Your task to perform on an android device: Search for usb-c on walmart.com, select the first entry, and add it to the cart. Image 0: 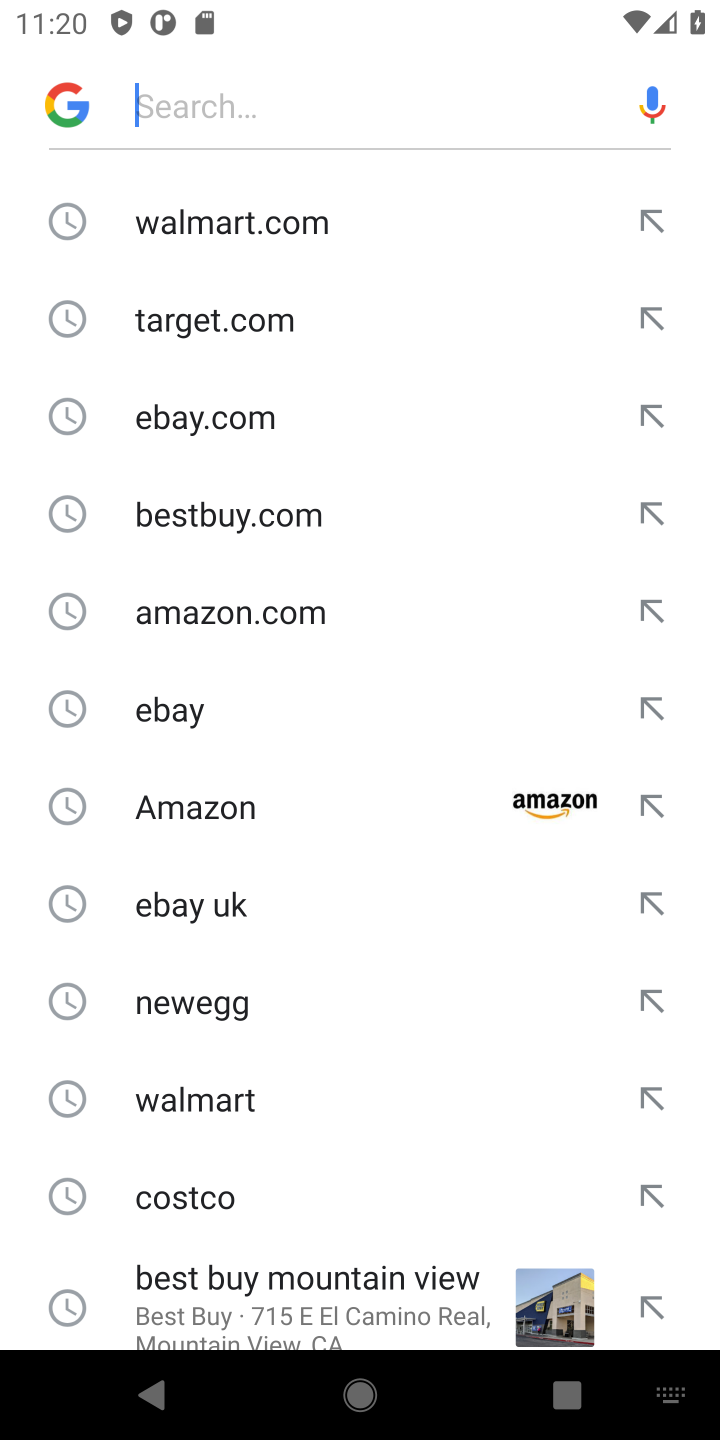
Step 0: press home button
Your task to perform on an android device: Search for usb-c on walmart.com, select the first entry, and add it to the cart. Image 1: 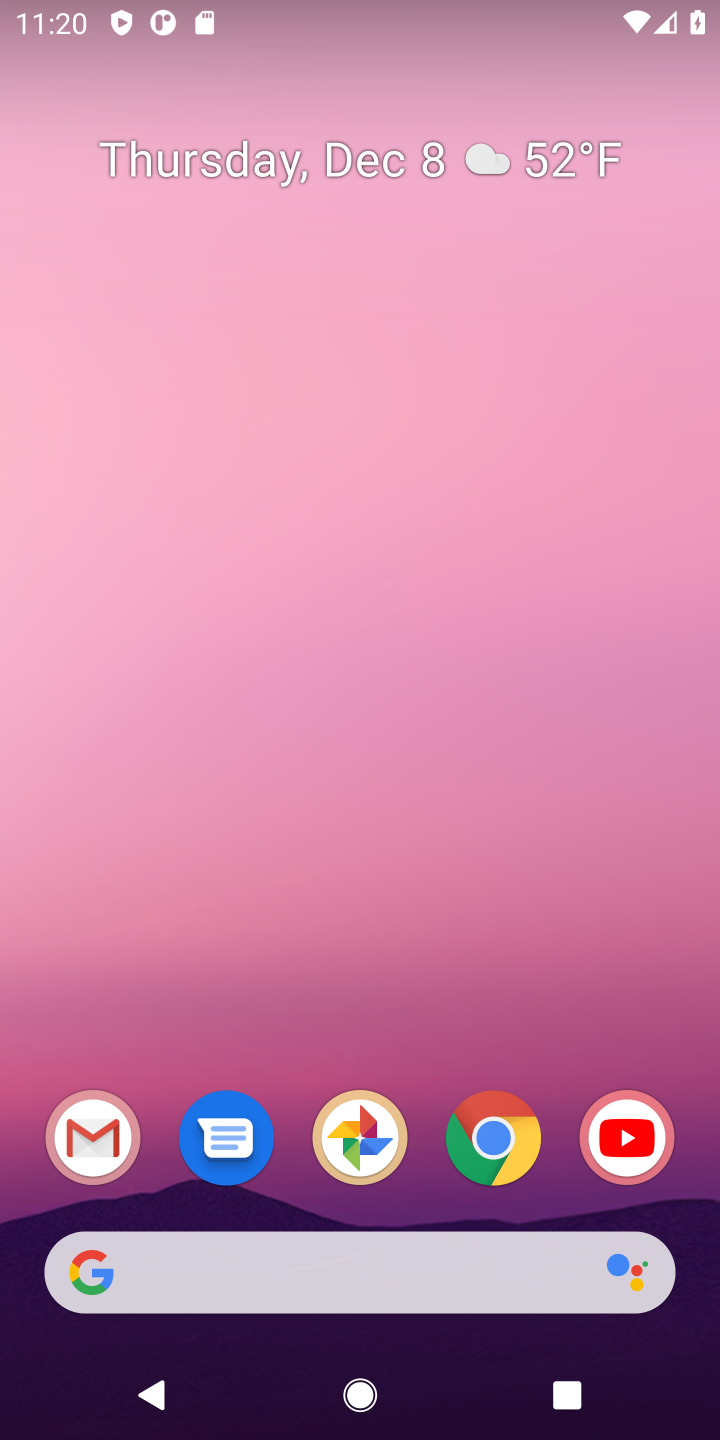
Step 1: click (488, 1140)
Your task to perform on an android device: Search for usb-c on walmart.com, select the first entry, and add it to the cart. Image 2: 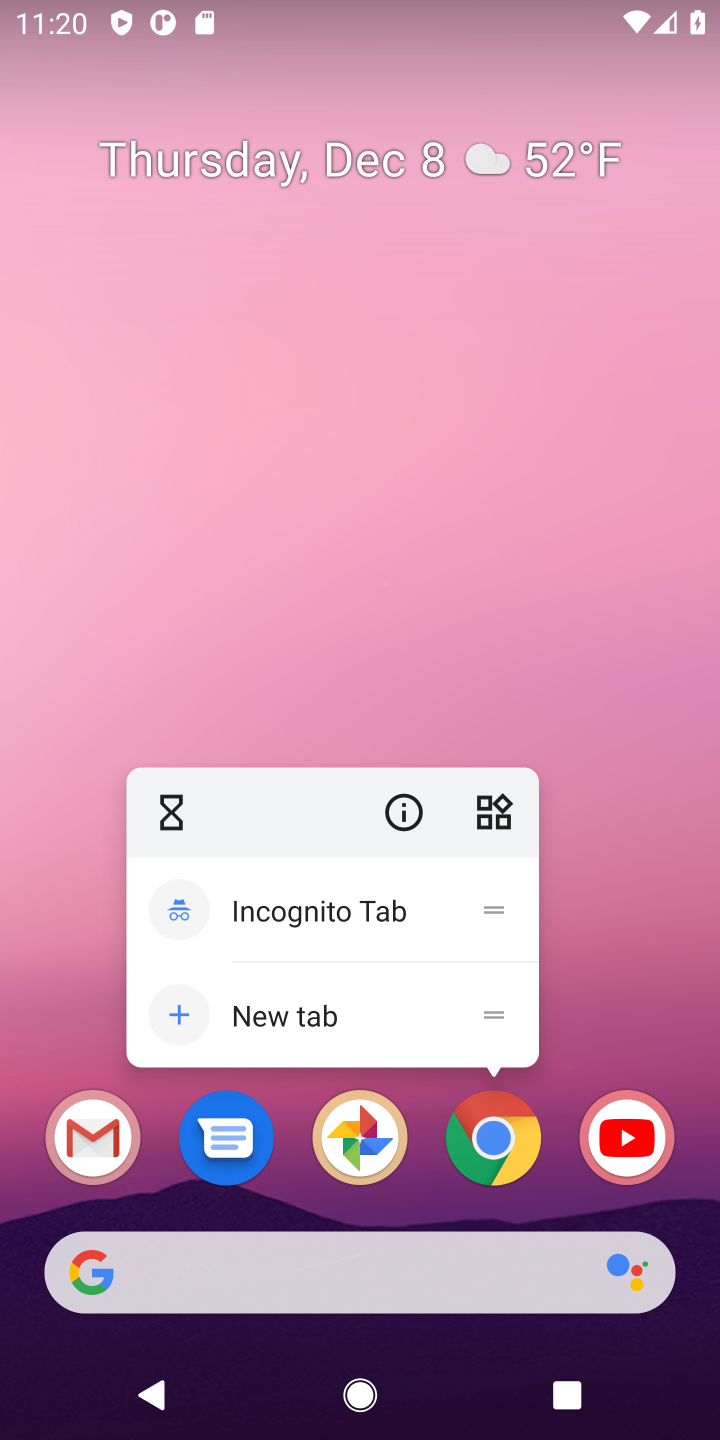
Step 2: click (510, 1160)
Your task to perform on an android device: Search for usb-c on walmart.com, select the first entry, and add it to the cart. Image 3: 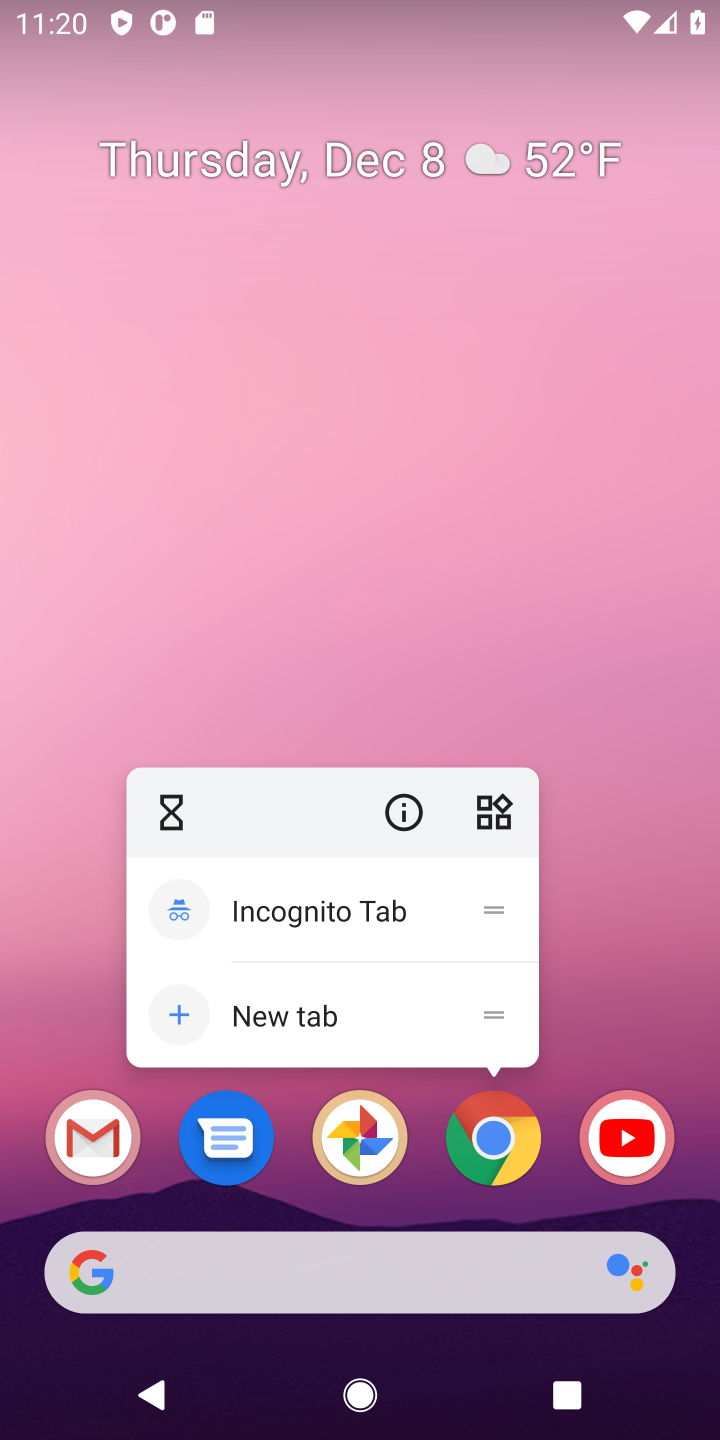
Step 3: click (510, 1161)
Your task to perform on an android device: Search for usb-c on walmart.com, select the first entry, and add it to the cart. Image 4: 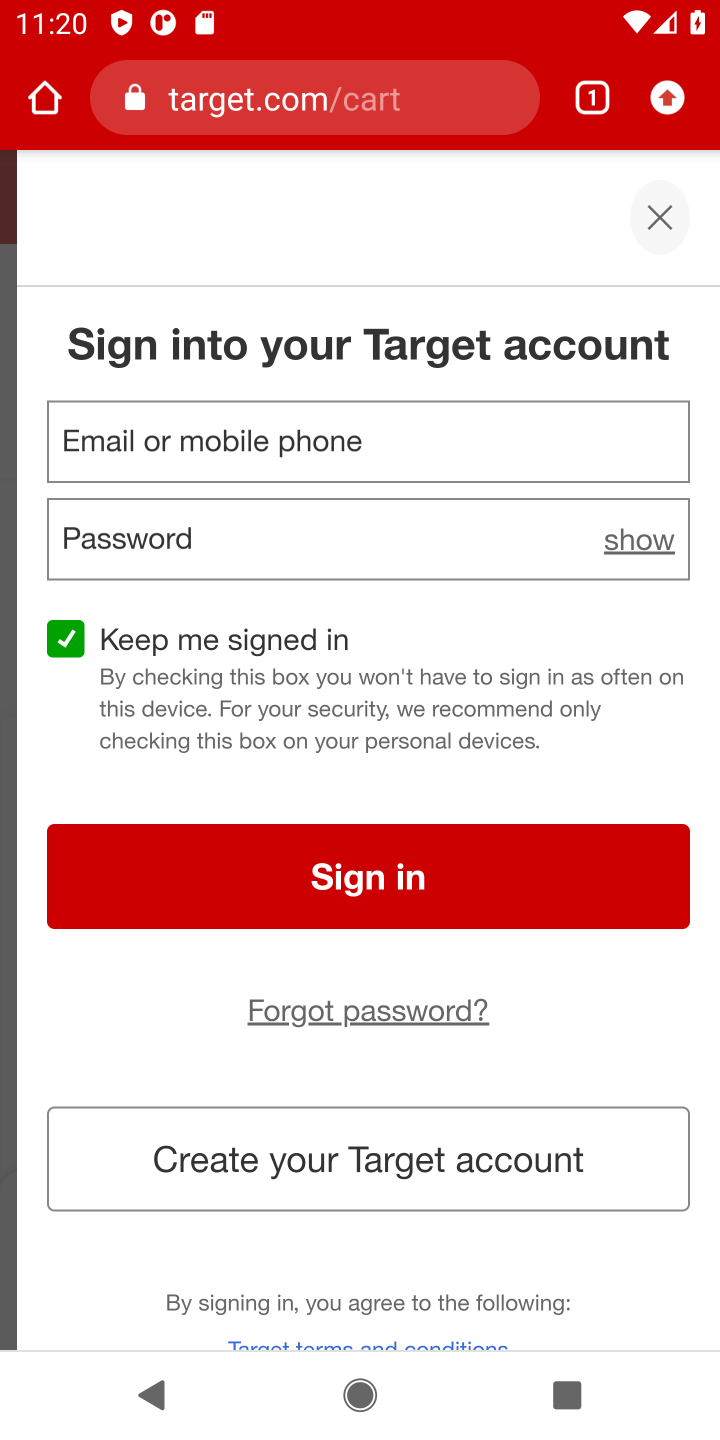
Step 4: click (242, 107)
Your task to perform on an android device: Search for usb-c on walmart.com, select the first entry, and add it to the cart. Image 5: 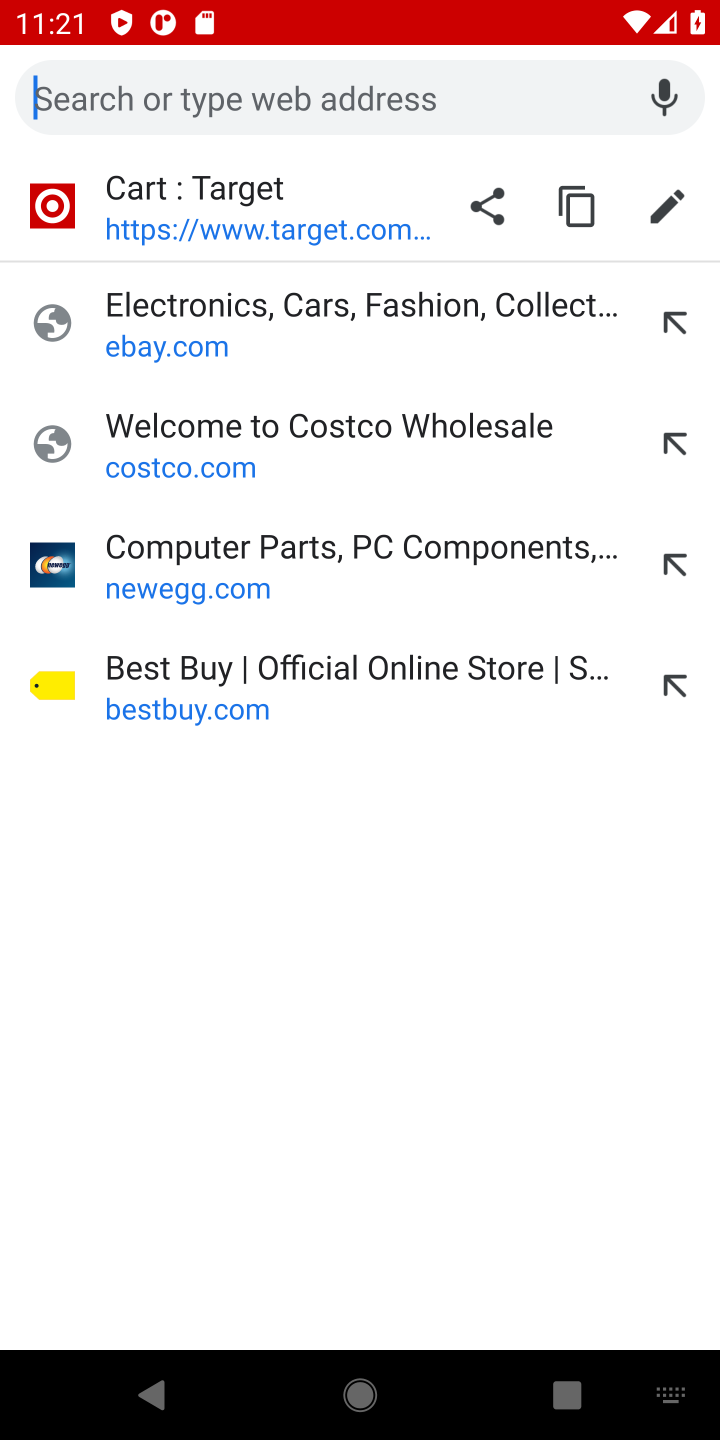
Step 5: type "walmart.com"
Your task to perform on an android device: Search for usb-c on walmart.com, select the first entry, and add it to the cart. Image 6: 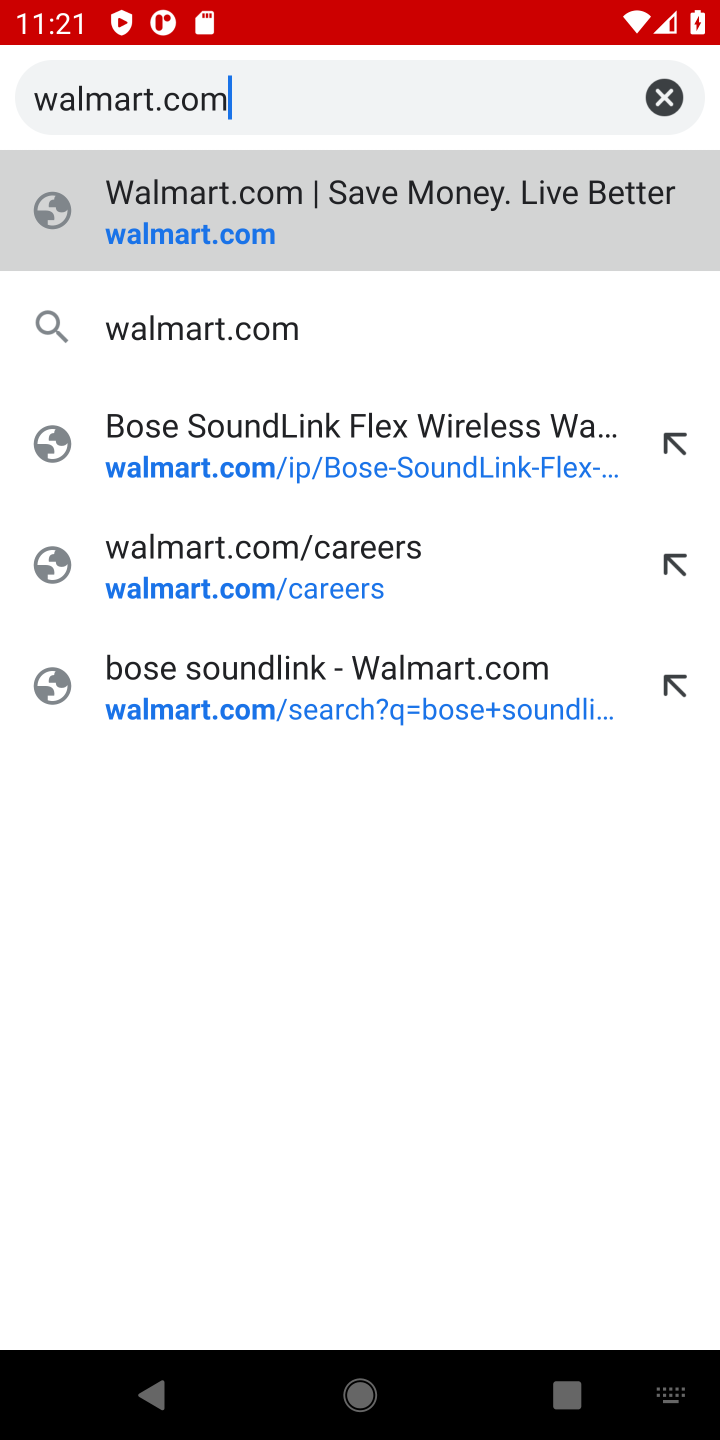
Step 6: click (331, 203)
Your task to perform on an android device: Search for usb-c on walmart.com, select the first entry, and add it to the cart. Image 7: 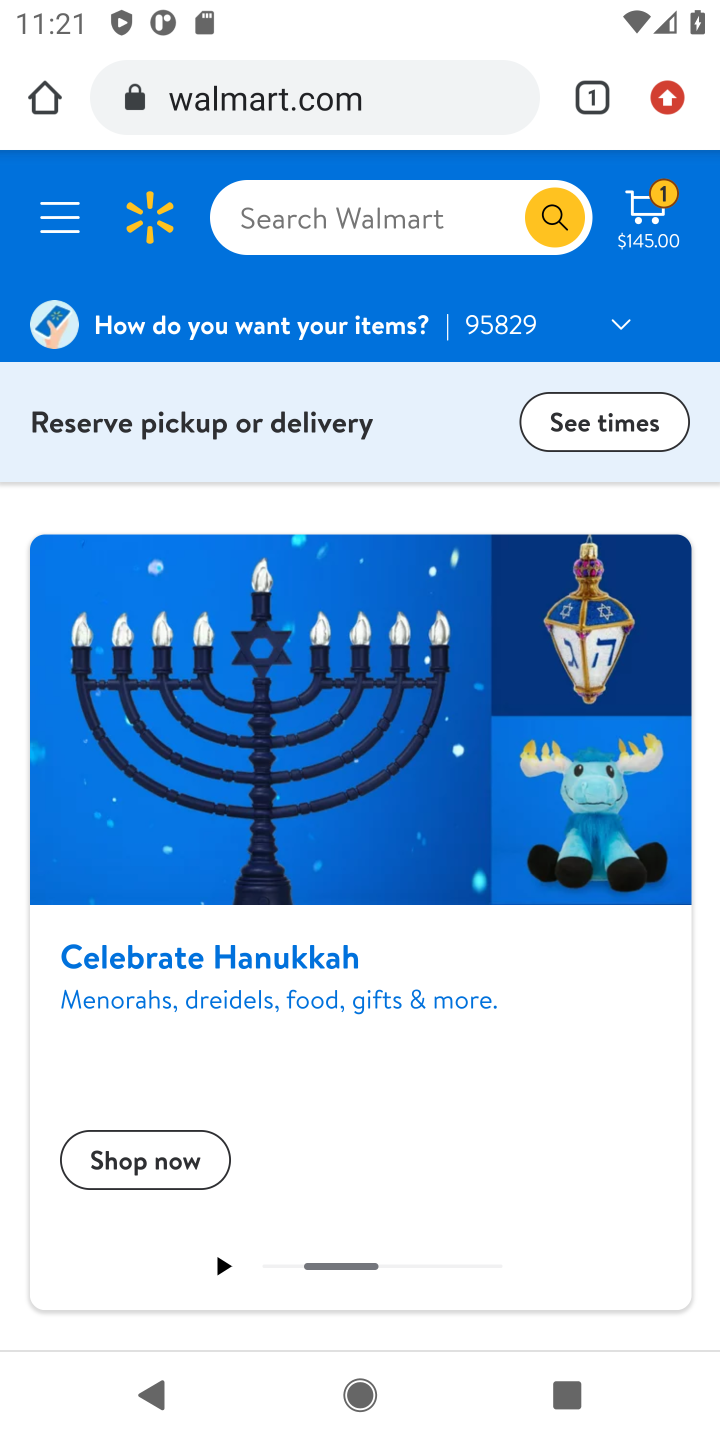
Step 7: click (323, 230)
Your task to perform on an android device: Search for usb-c on walmart.com, select the first entry, and add it to the cart. Image 8: 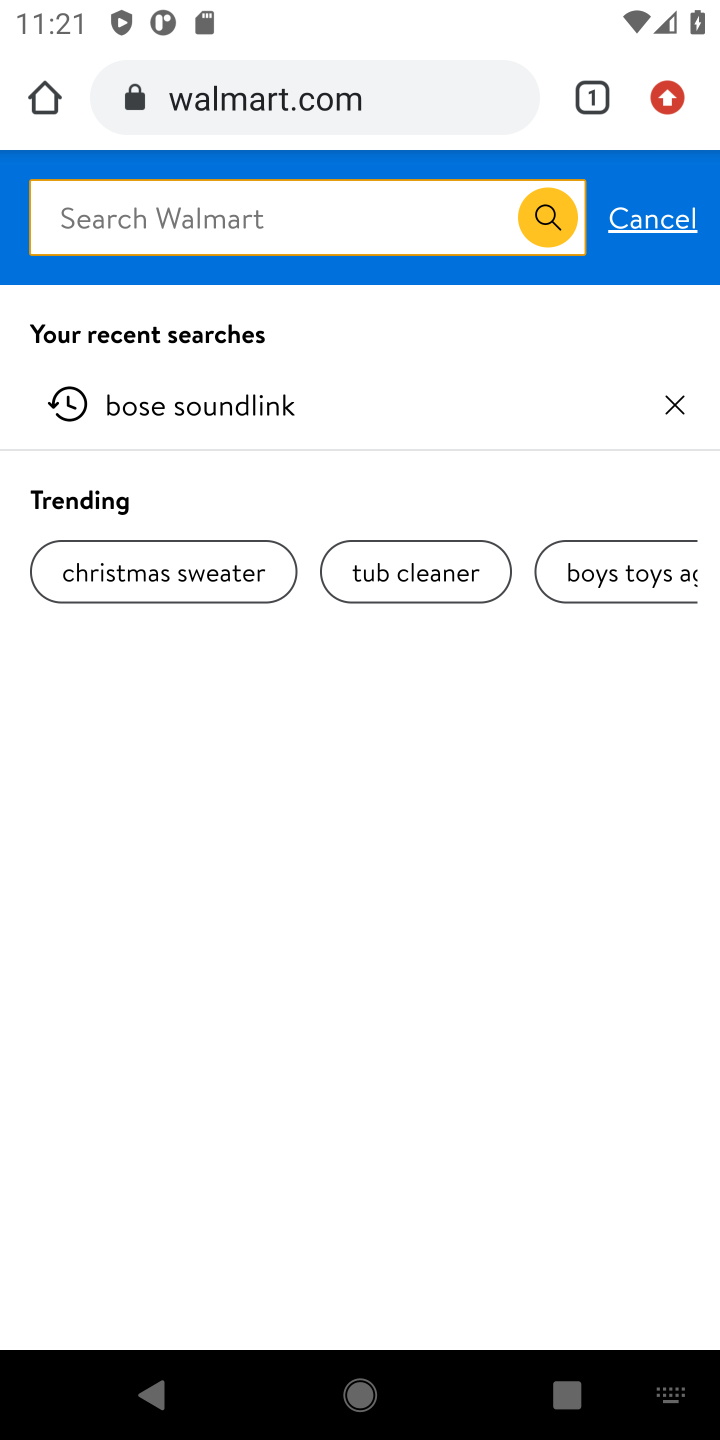
Step 8: type "usb-c"
Your task to perform on an android device: Search for usb-c on walmart.com, select the first entry, and add it to the cart. Image 9: 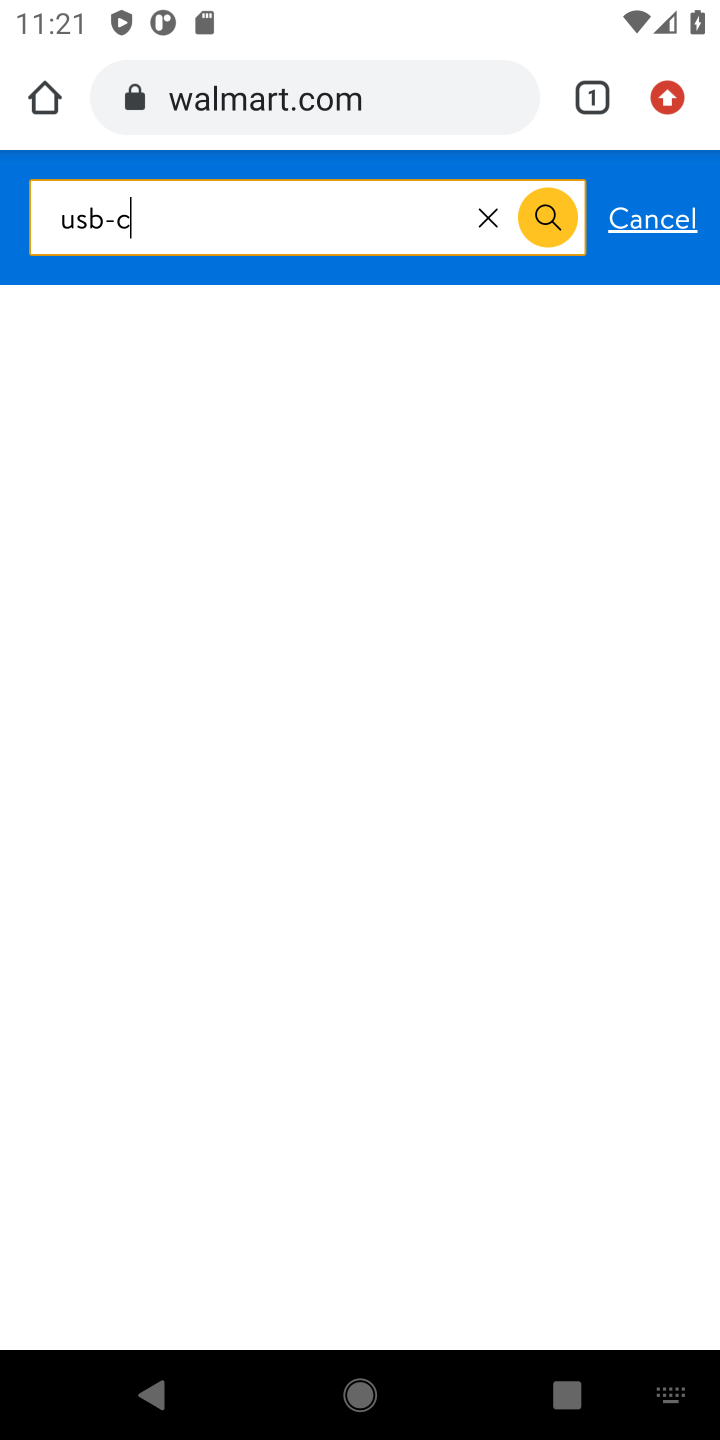
Step 9: press enter
Your task to perform on an android device: Search for usb-c on walmart.com, select the first entry, and add it to the cart. Image 10: 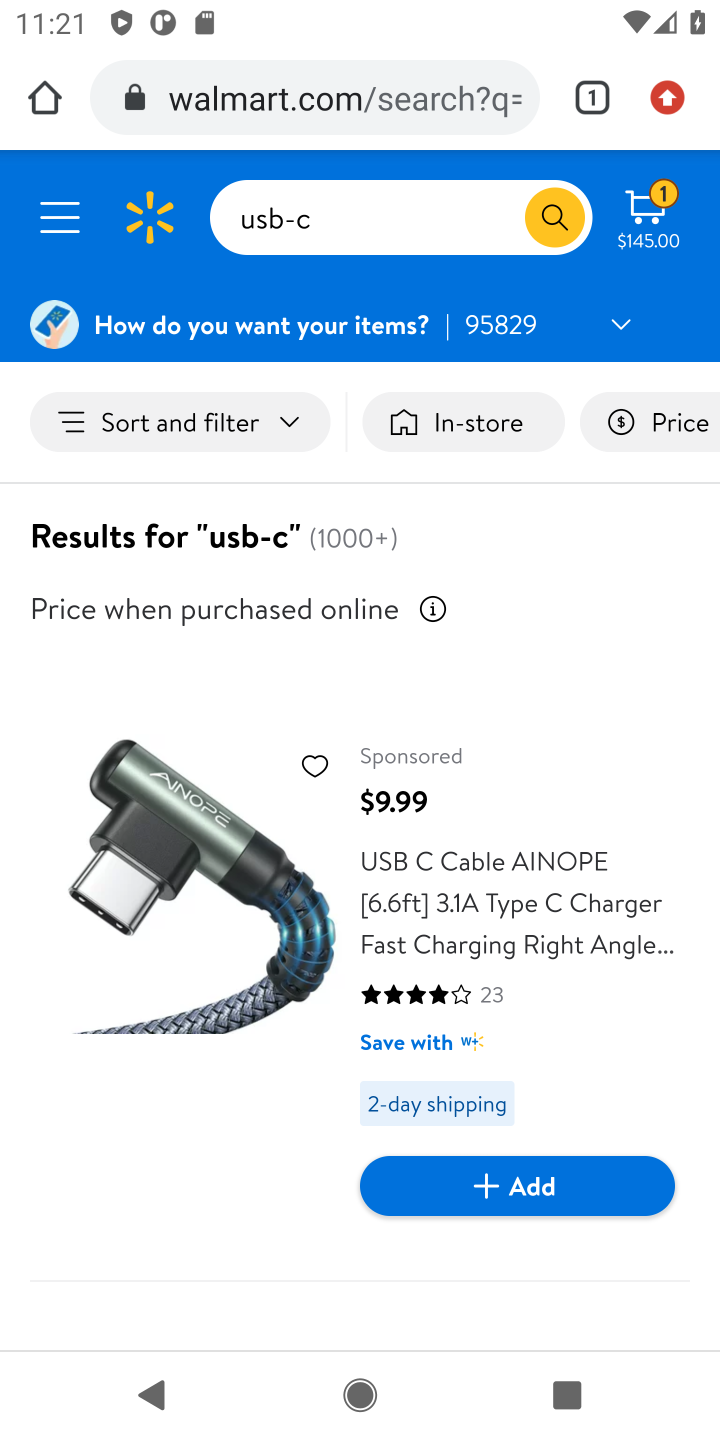
Step 10: click (545, 1190)
Your task to perform on an android device: Search for usb-c on walmart.com, select the first entry, and add it to the cart. Image 11: 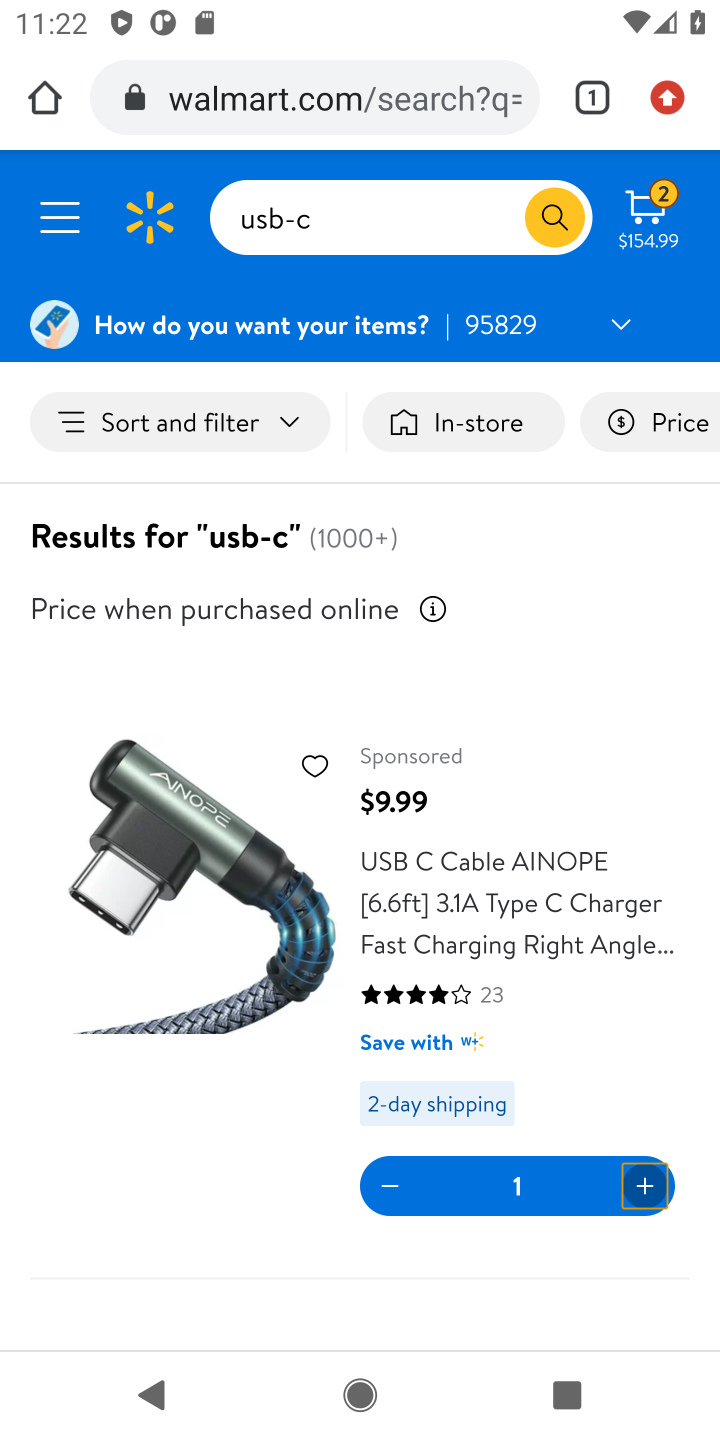
Step 11: task complete